Your task to perform on an android device: snooze an email in the gmail app Image 0: 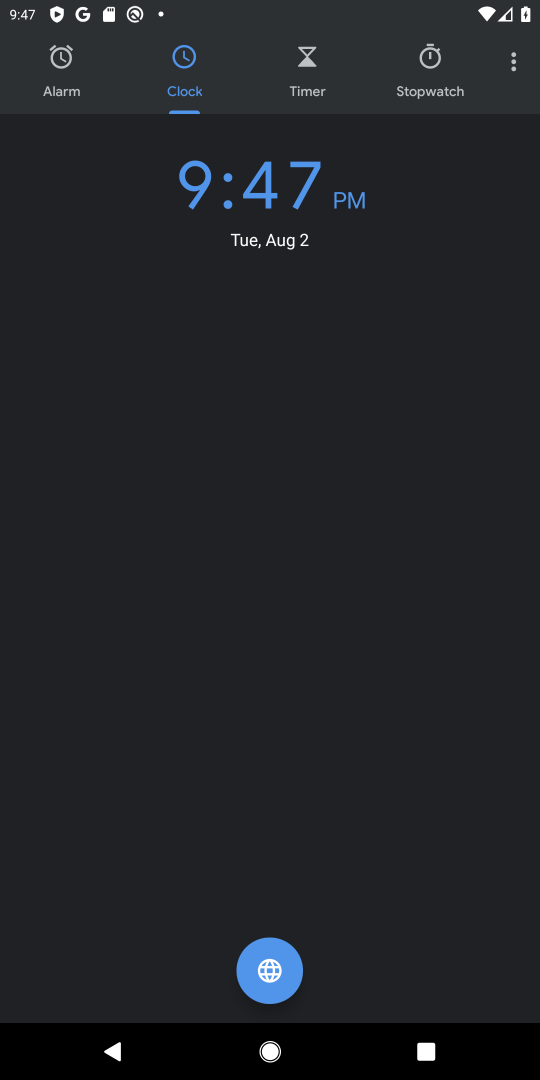
Step 0: press back button
Your task to perform on an android device: snooze an email in the gmail app Image 1: 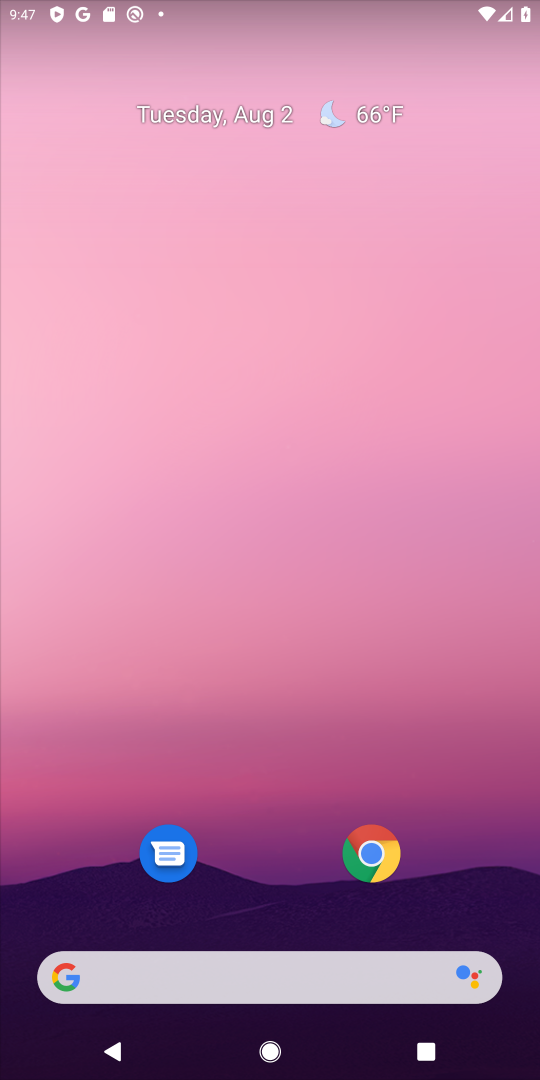
Step 1: drag from (519, 908) to (418, 183)
Your task to perform on an android device: snooze an email in the gmail app Image 2: 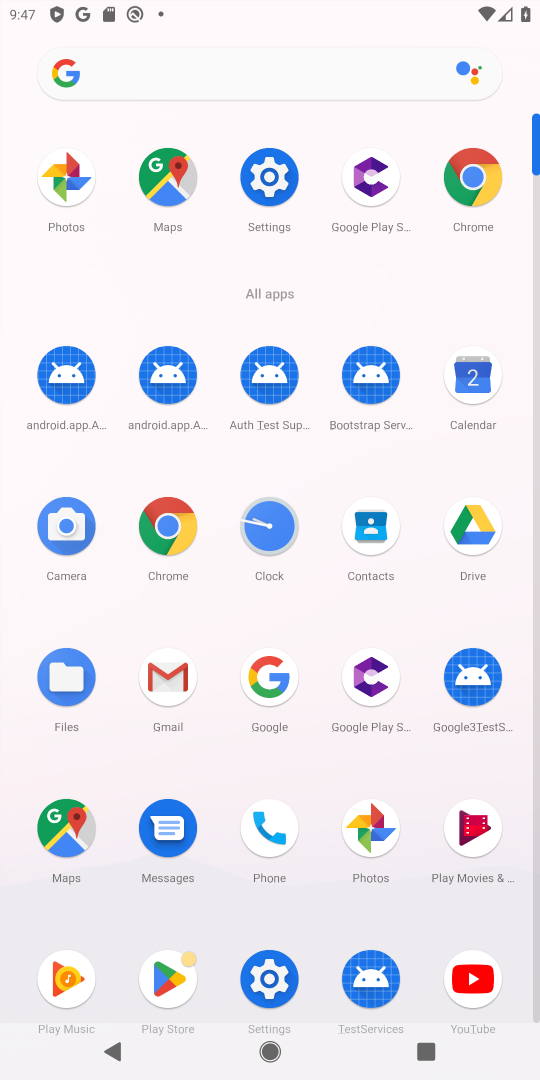
Step 2: click (156, 677)
Your task to perform on an android device: snooze an email in the gmail app Image 3: 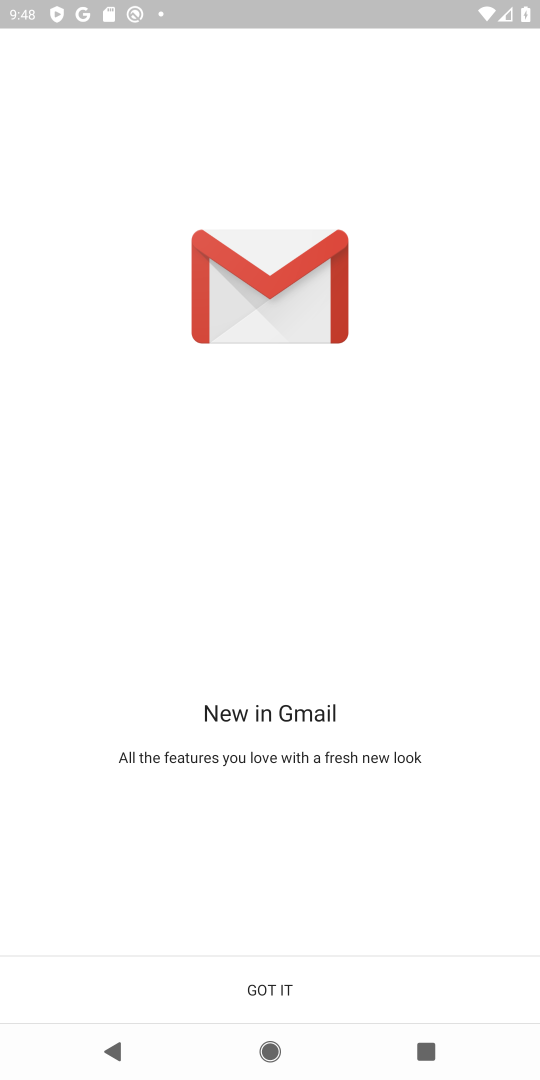
Step 3: click (241, 1008)
Your task to perform on an android device: snooze an email in the gmail app Image 4: 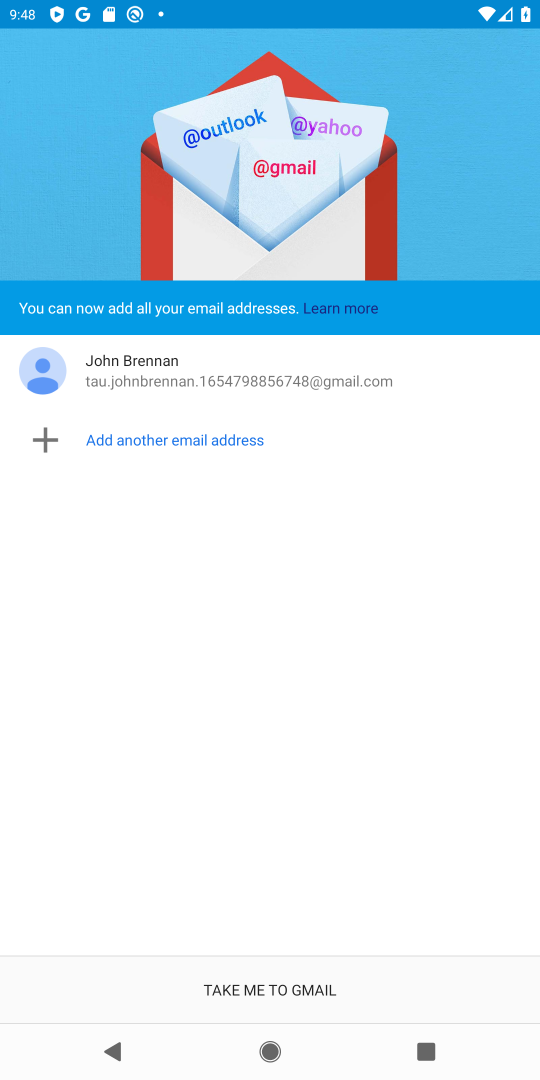
Step 4: click (256, 1001)
Your task to perform on an android device: snooze an email in the gmail app Image 5: 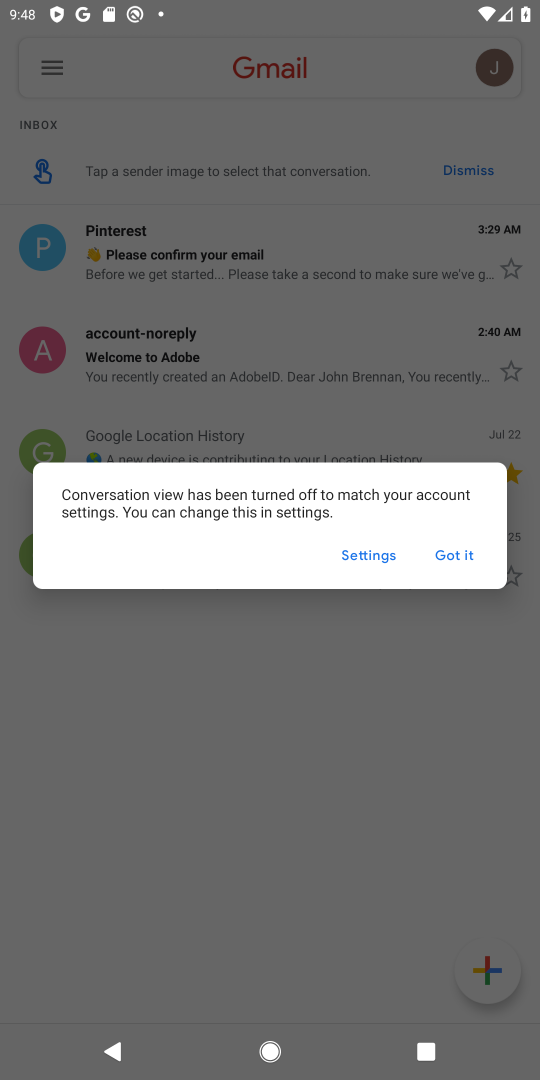
Step 5: click (450, 560)
Your task to perform on an android device: snooze an email in the gmail app Image 6: 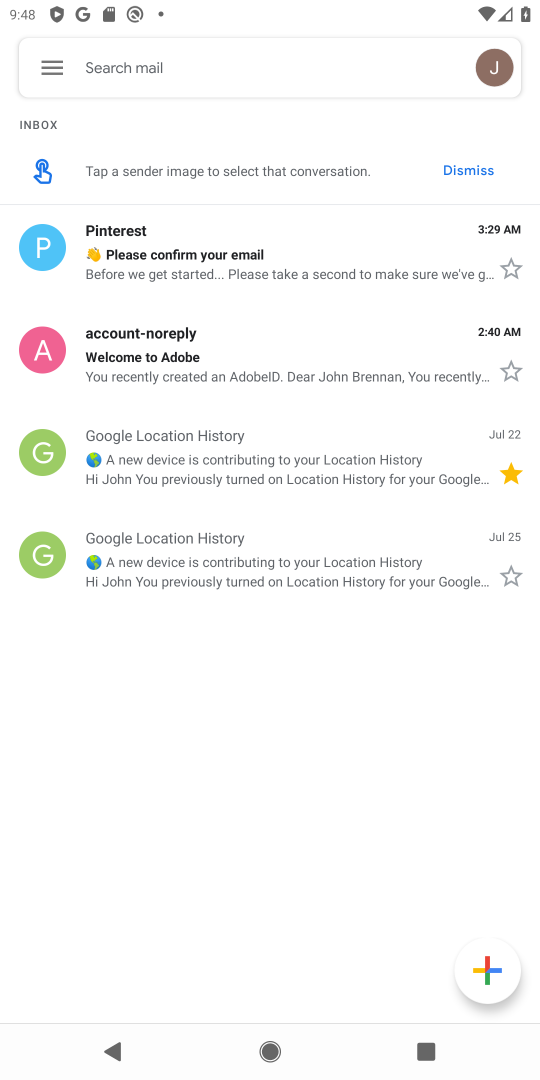
Step 6: click (332, 344)
Your task to perform on an android device: snooze an email in the gmail app Image 7: 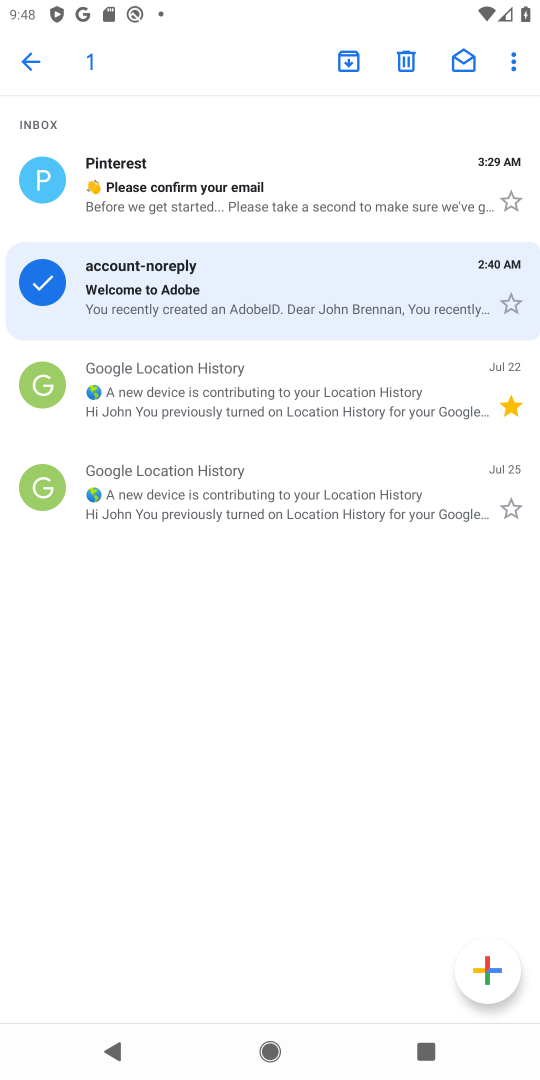
Step 7: click (516, 60)
Your task to perform on an android device: snooze an email in the gmail app Image 8: 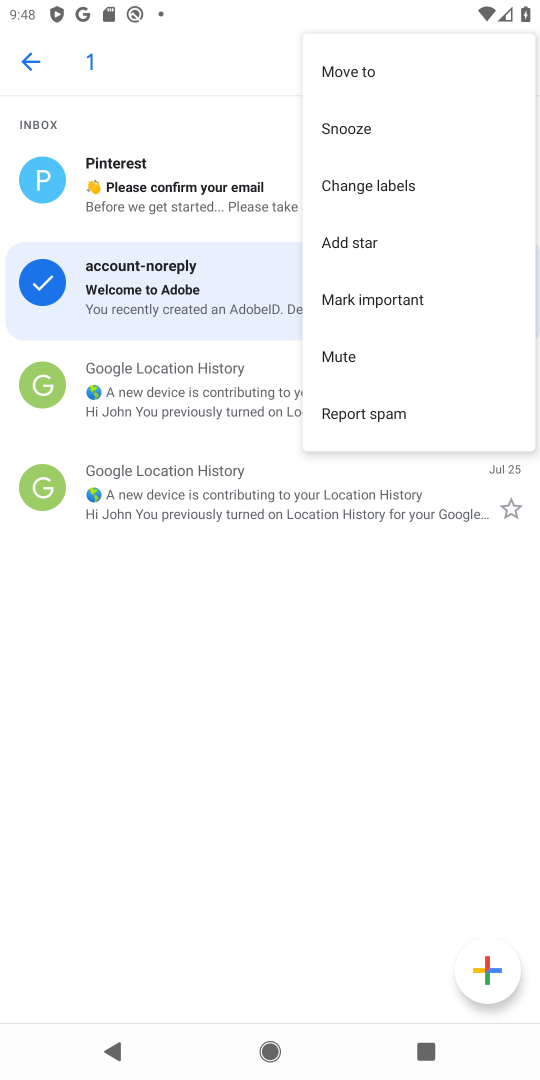
Step 8: click (431, 133)
Your task to perform on an android device: snooze an email in the gmail app Image 9: 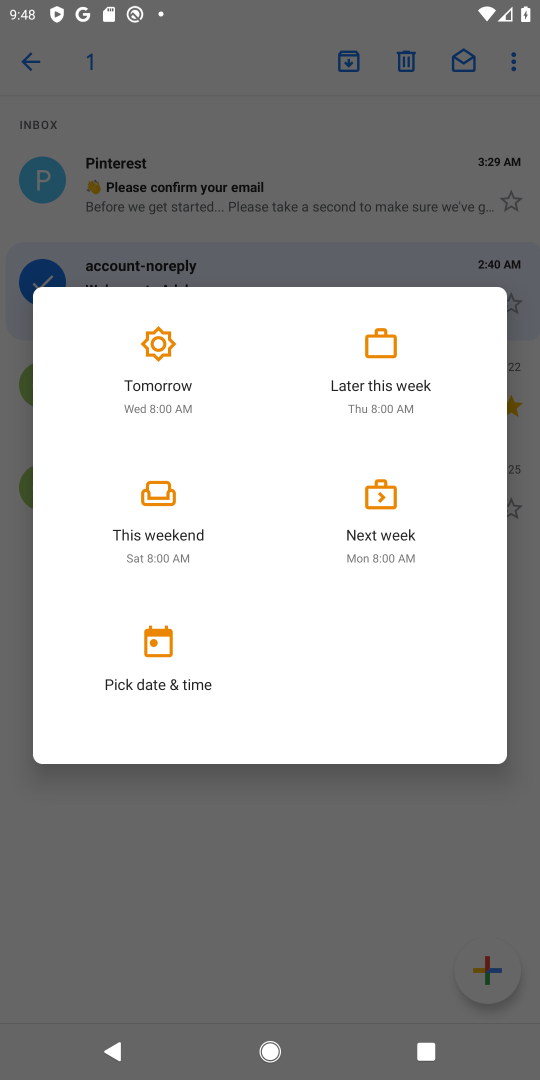
Step 9: click (384, 363)
Your task to perform on an android device: snooze an email in the gmail app Image 10: 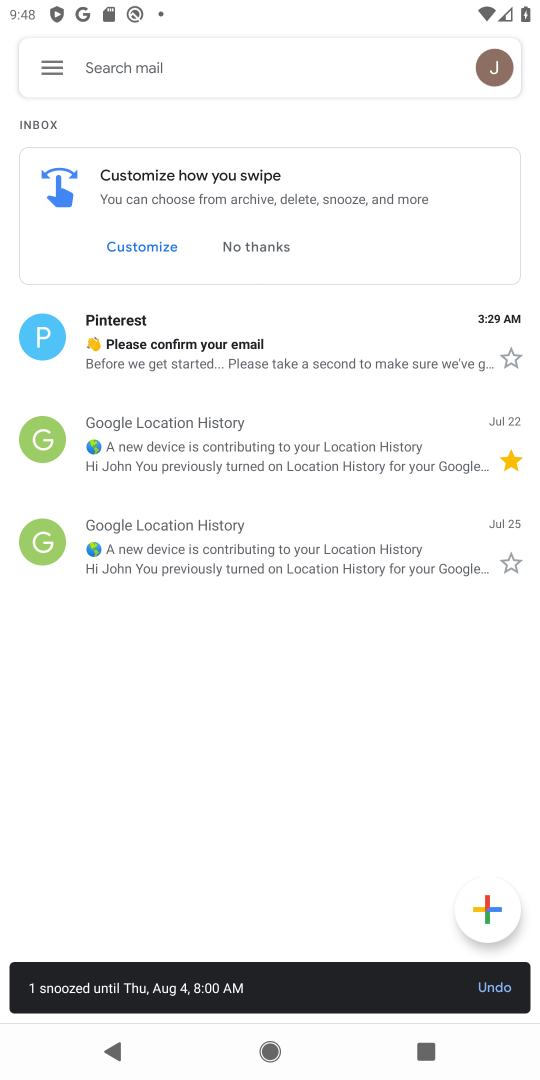
Step 10: task complete